Your task to perform on an android device: Go to CNN.com Image 0: 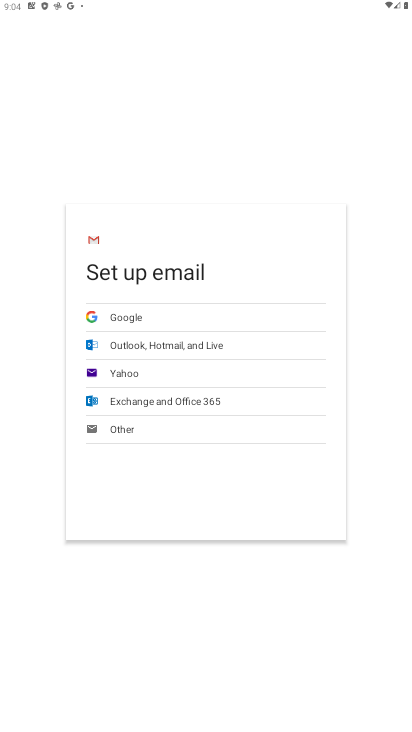
Step 0: press home button
Your task to perform on an android device: Go to CNN.com Image 1: 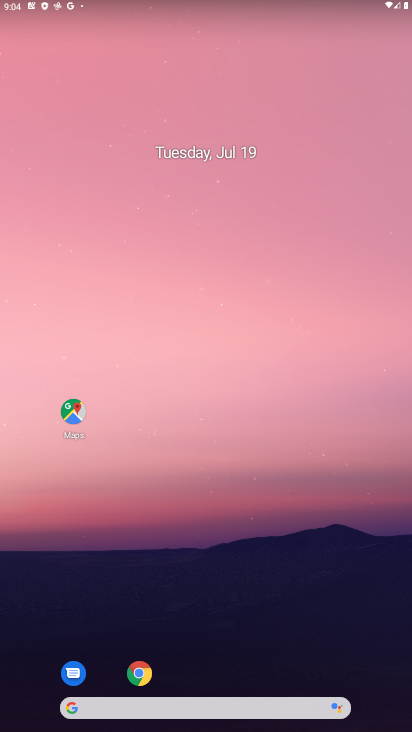
Step 1: click (181, 703)
Your task to perform on an android device: Go to CNN.com Image 2: 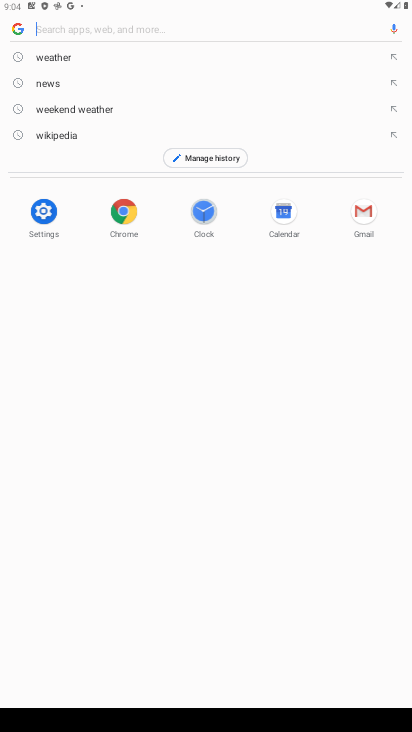
Step 2: type "cnn.com"
Your task to perform on an android device: Go to CNN.com Image 3: 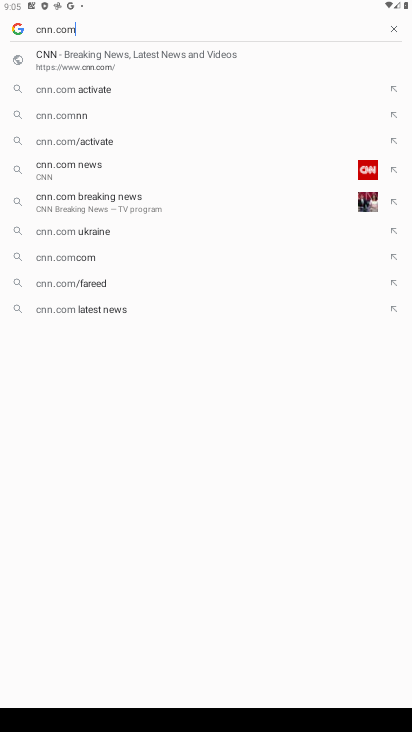
Step 3: click (159, 71)
Your task to perform on an android device: Go to CNN.com Image 4: 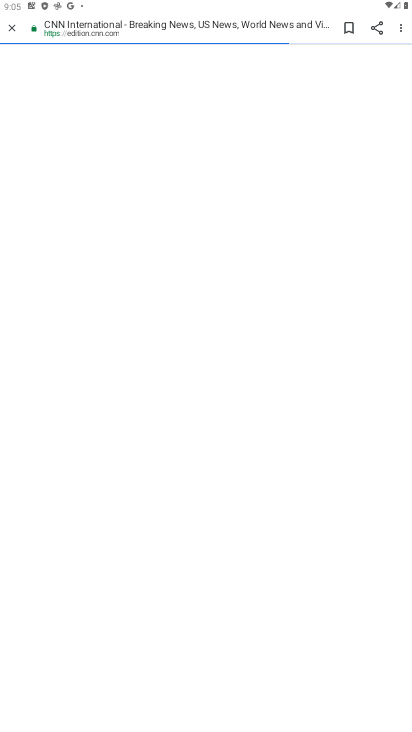
Step 4: task complete